Your task to perform on an android device: stop showing notifications on the lock screen Image 0: 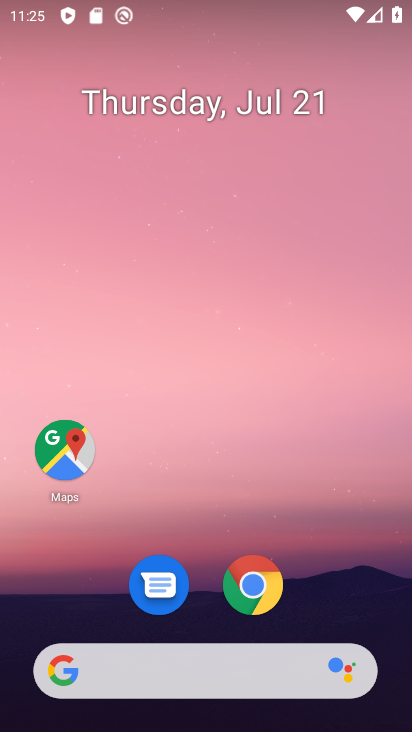
Step 0: press home button
Your task to perform on an android device: stop showing notifications on the lock screen Image 1: 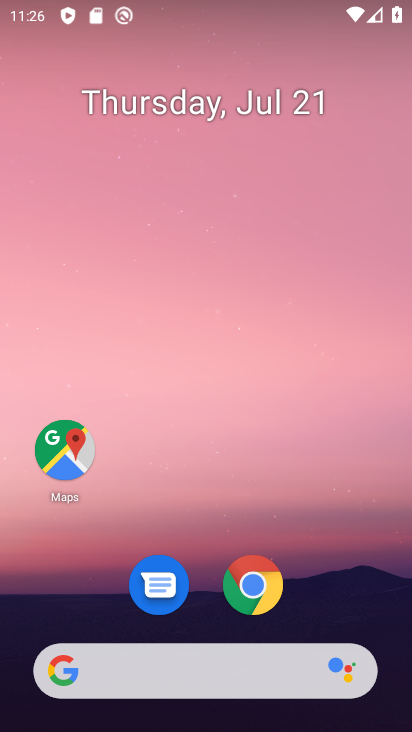
Step 1: drag from (235, 424) to (266, 165)
Your task to perform on an android device: stop showing notifications on the lock screen Image 2: 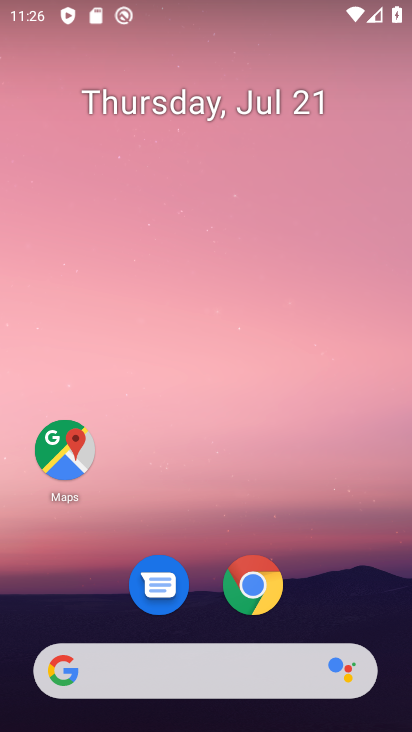
Step 2: drag from (164, 665) to (275, 74)
Your task to perform on an android device: stop showing notifications on the lock screen Image 3: 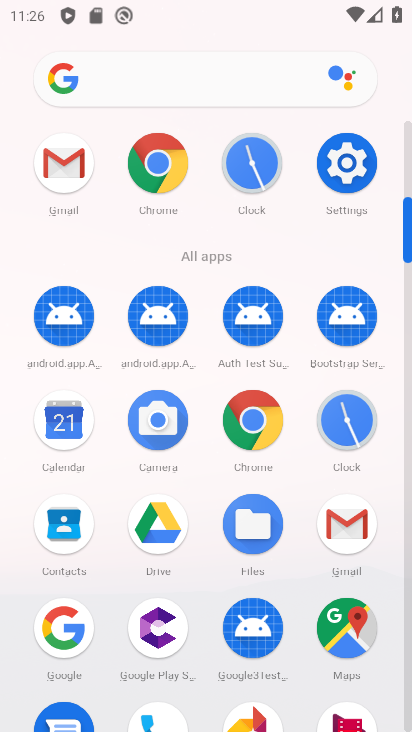
Step 3: click (343, 172)
Your task to perform on an android device: stop showing notifications on the lock screen Image 4: 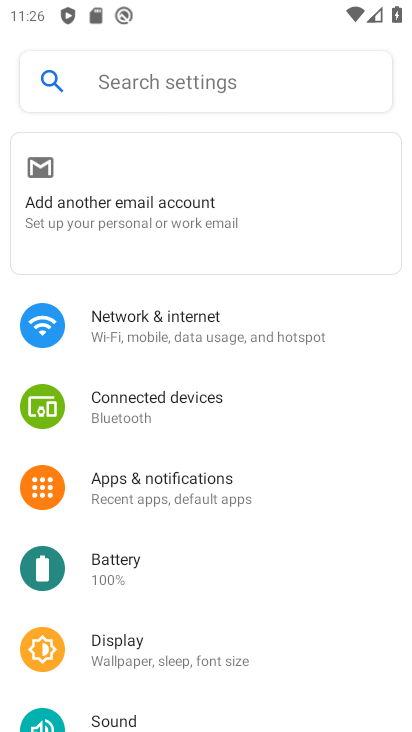
Step 4: drag from (257, 626) to (337, 173)
Your task to perform on an android device: stop showing notifications on the lock screen Image 5: 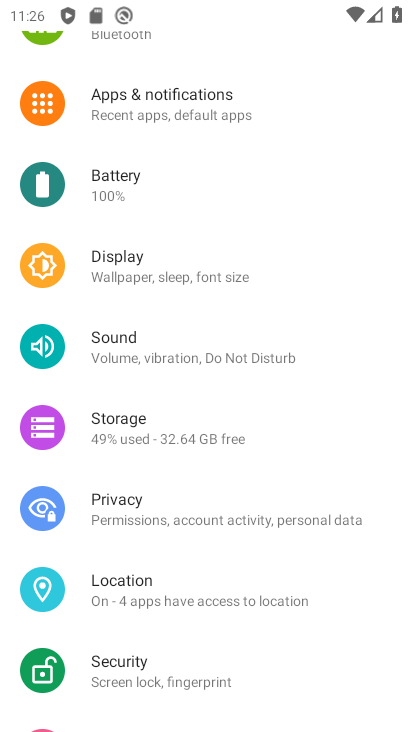
Step 5: click (194, 106)
Your task to perform on an android device: stop showing notifications on the lock screen Image 6: 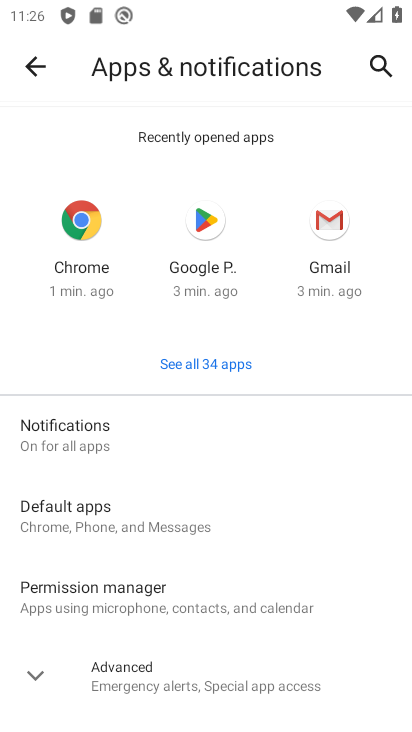
Step 6: click (78, 437)
Your task to perform on an android device: stop showing notifications on the lock screen Image 7: 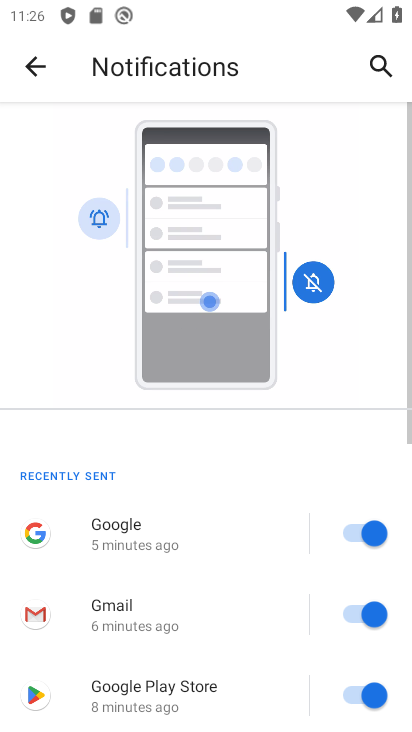
Step 7: drag from (214, 540) to (378, 126)
Your task to perform on an android device: stop showing notifications on the lock screen Image 8: 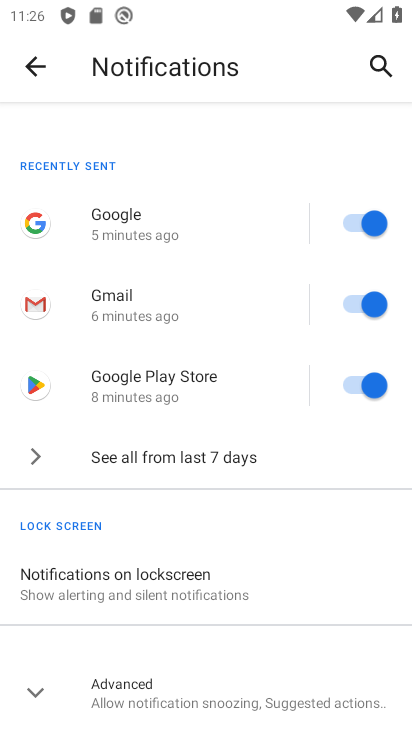
Step 8: click (189, 590)
Your task to perform on an android device: stop showing notifications on the lock screen Image 9: 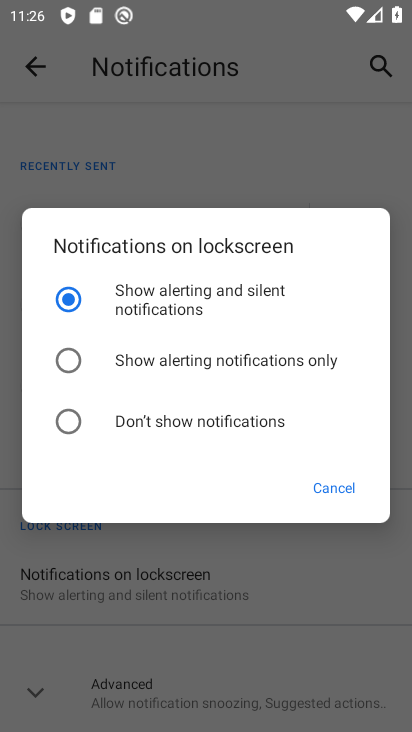
Step 9: click (68, 419)
Your task to perform on an android device: stop showing notifications on the lock screen Image 10: 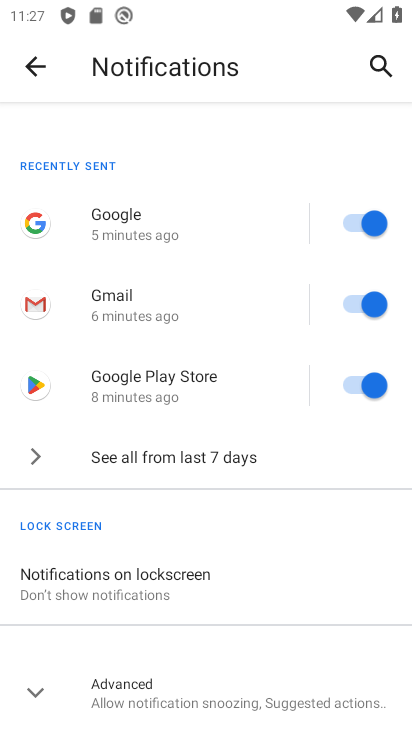
Step 10: task complete